Your task to perform on an android device: Open the Play Movies app and select the watchlist tab. Image 0: 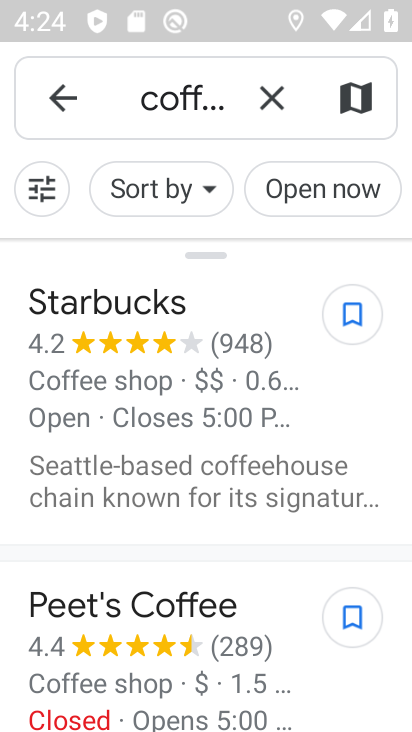
Step 0: press home button
Your task to perform on an android device: Open the Play Movies app and select the watchlist tab. Image 1: 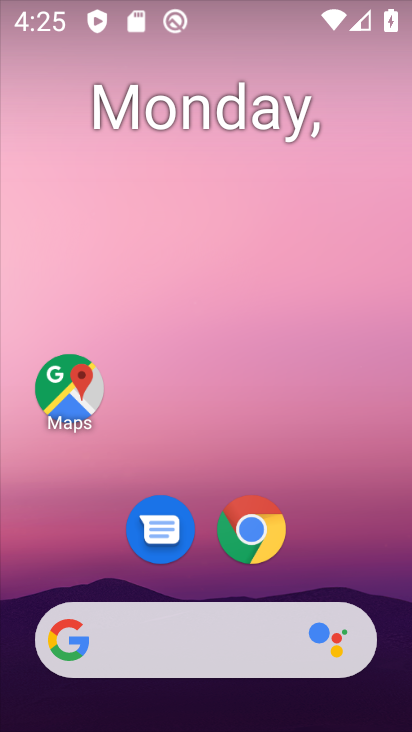
Step 1: drag from (205, 589) to (359, 0)
Your task to perform on an android device: Open the Play Movies app and select the watchlist tab. Image 2: 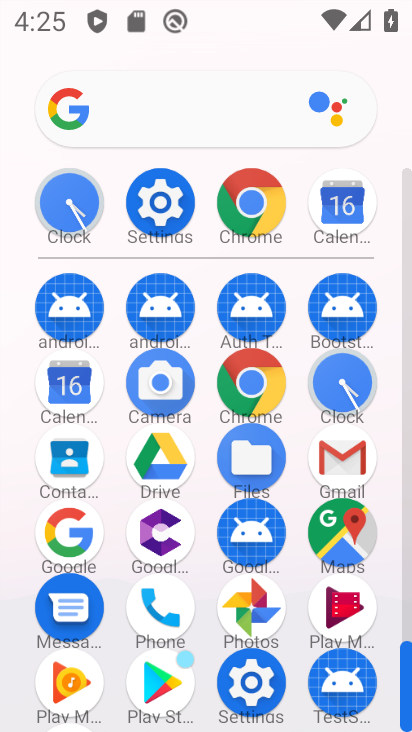
Step 2: click (340, 609)
Your task to perform on an android device: Open the Play Movies app and select the watchlist tab. Image 3: 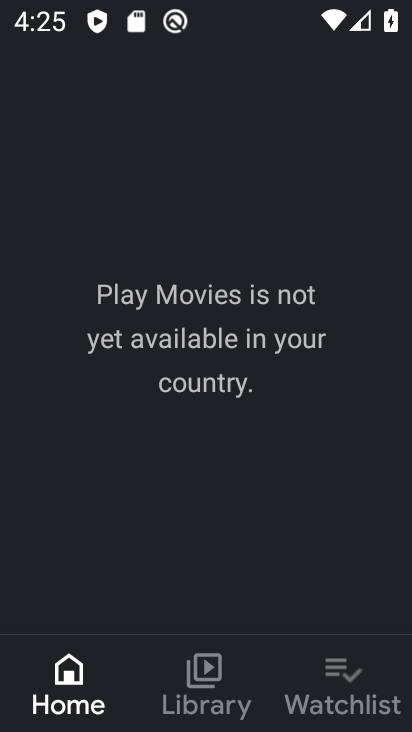
Step 3: task complete